Your task to perform on an android device: change keyboard looks Image 0: 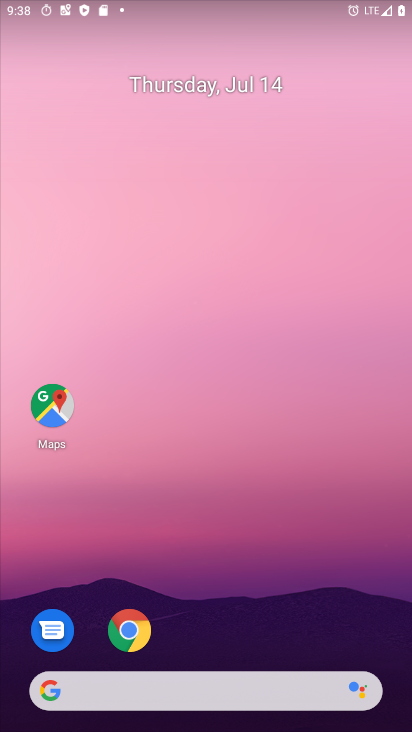
Step 0: drag from (205, 726) to (186, 6)
Your task to perform on an android device: change keyboard looks Image 1: 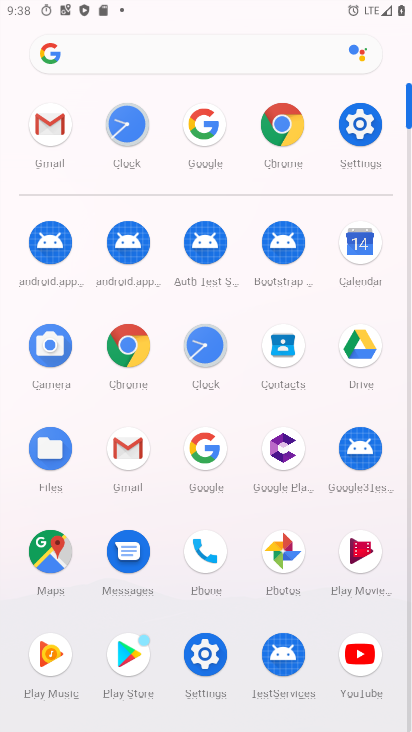
Step 1: click (378, 120)
Your task to perform on an android device: change keyboard looks Image 2: 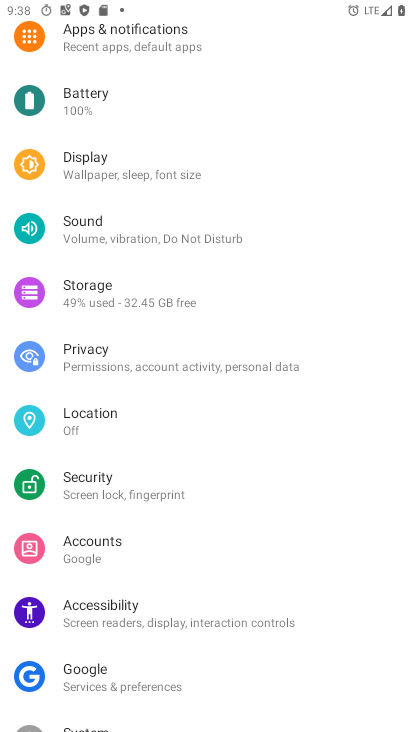
Step 2: drag from (206, 697) to (214, 349)
Your task to perform on an android device: change keyboard looks Image 3: 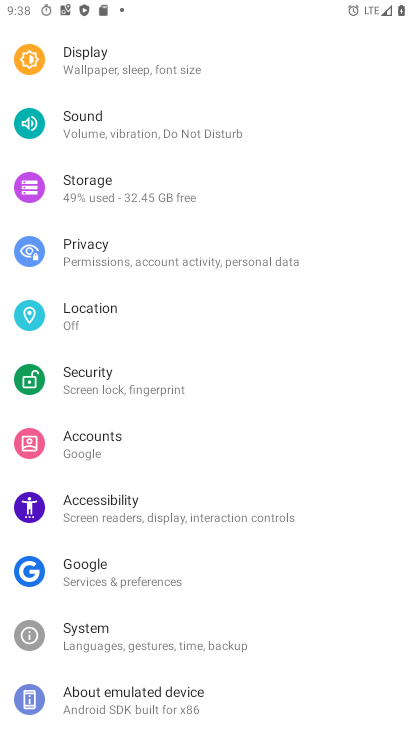
Step 3: drag from (236, 650) to (232, 525)
Your task to perform on an android device: change keyboard looks Image 4: 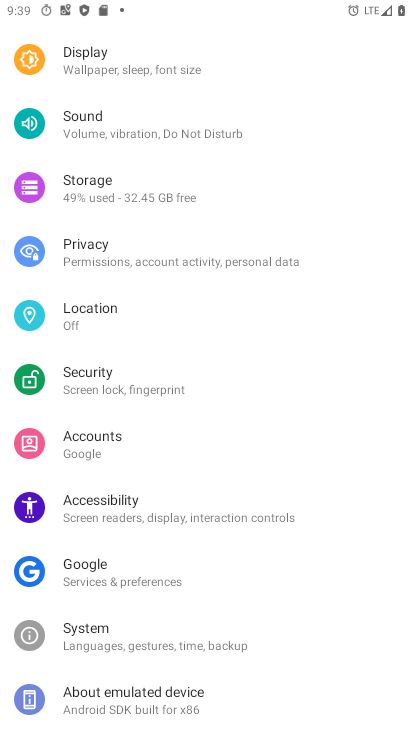
Step 4: click (105, 637)
Your task to perform on an android device: change keyboard looks Image 5: 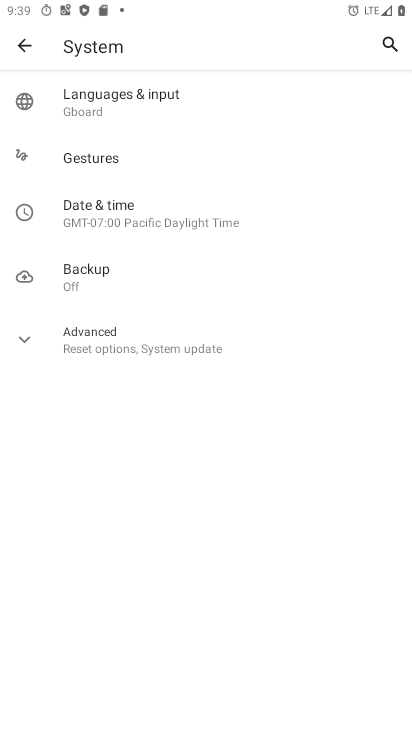
Step 5: click (106, 100)
Your task to perform on an android device: change keyboard looks Image 6: 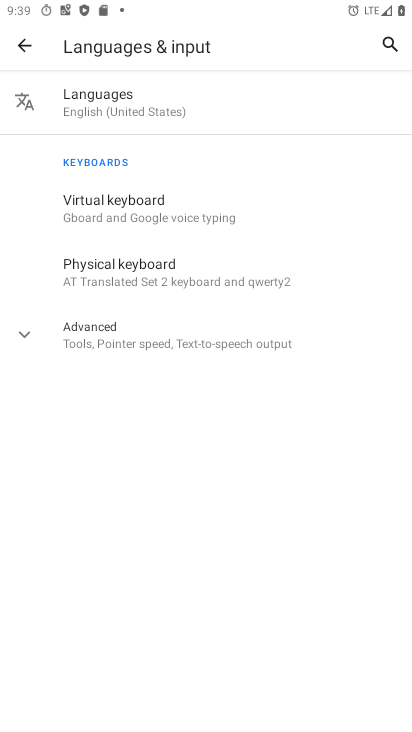
Step 6: click (106, 195)
Your task to perform on an android device: change keyboard looks Image 7: 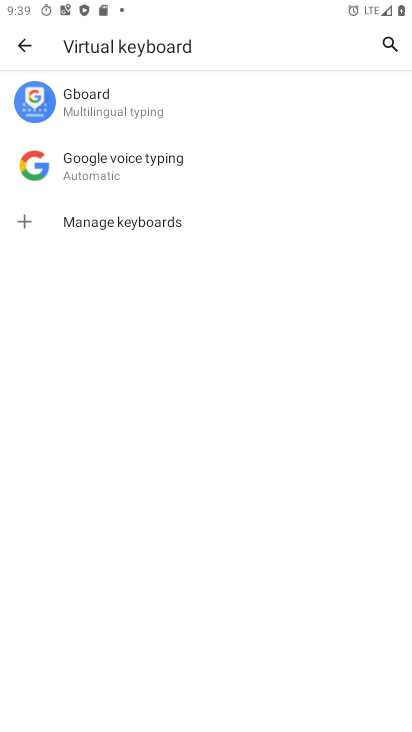
Step 7: click (96, 96)
Your task to perform on an android device: change keyboard looks Image 8: 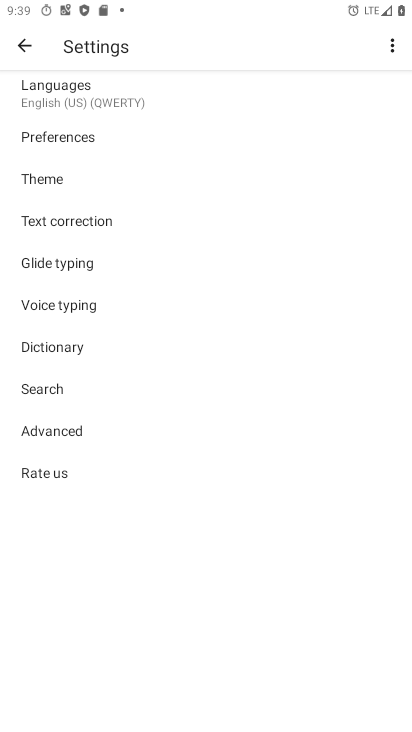
Step 8: click (46, 177)
Your task to perform on an android device: change keyboard looks Image 9: 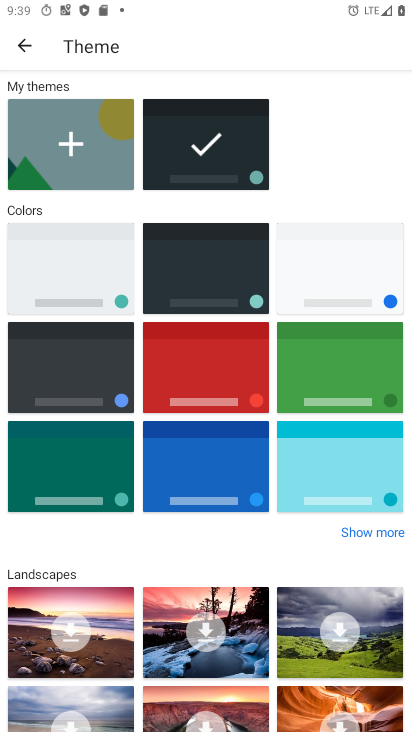
Step 9: click (182, 273)
Your task to perform on an android device: change keyboard looks Image 10: 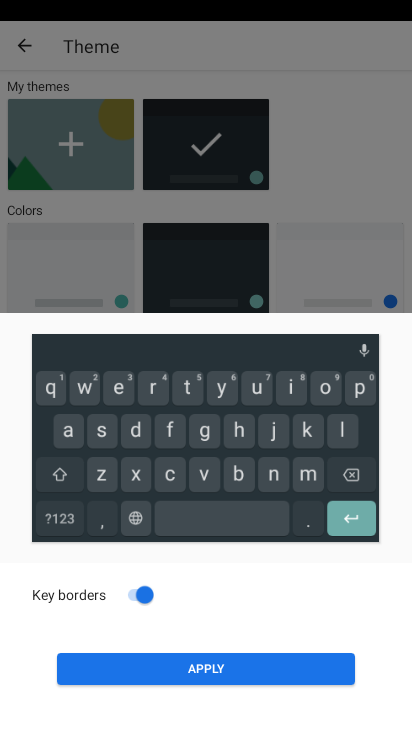
Step 10: click (227, 668)
Your task to perform on an android device: change keyboard looks Image 11: 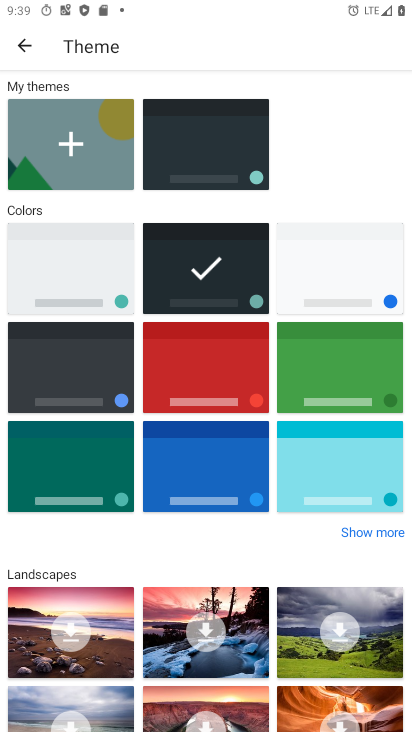
Step 11: task complete